Your task to perform on an android device: show emergency info Image 0: 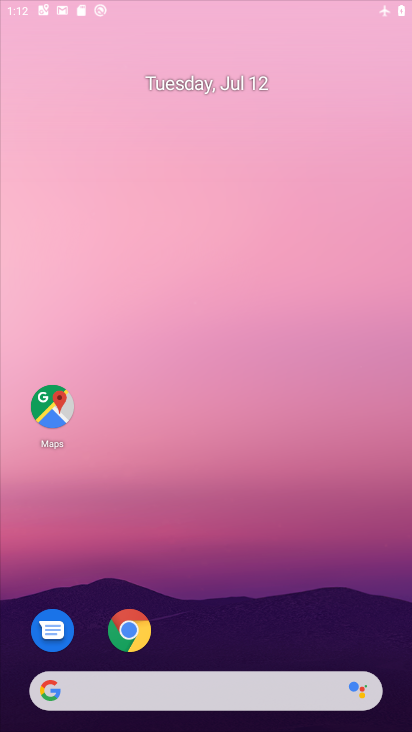
Step 0: press home button
Your task to perform on an android device: show emergency info Image 1: 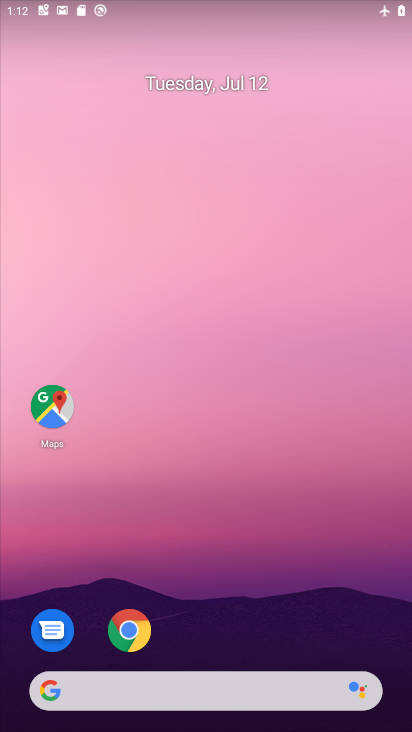
Step 1: drag from (195, 579) to (233, 170)
Your task to perform on an android device: show emergency info Image 2: 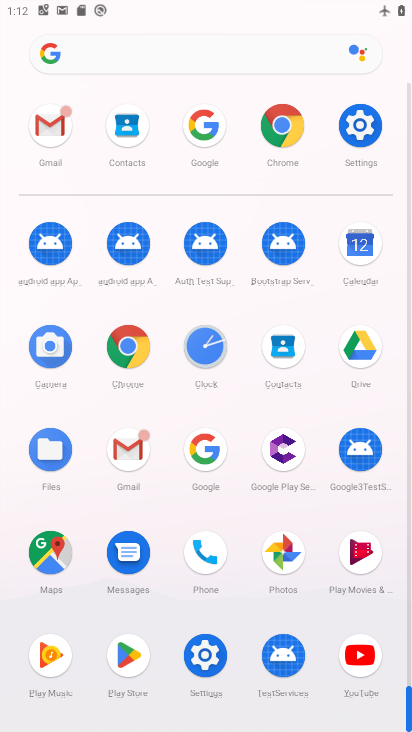
Step 2: click (379, 102)
Your task to perform on an android device: show emergency info Image 3: 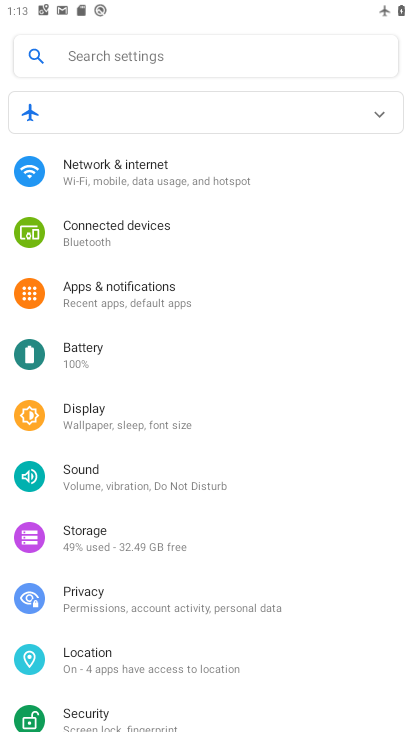
Step 3: drag from (145, 604) to (238, 158)
Your task to perform on an android device: show emergency info Image 4: 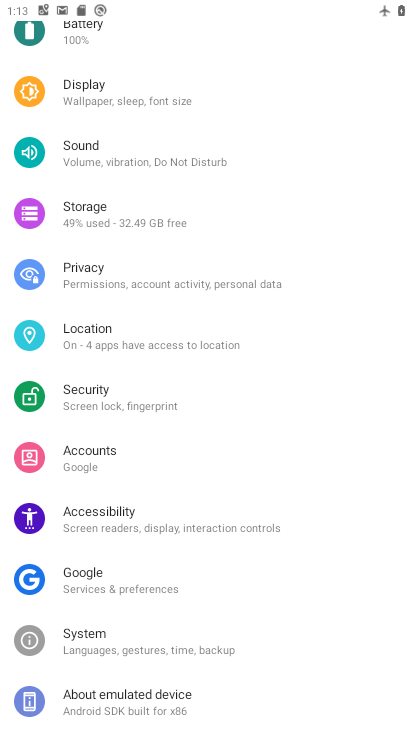
Step 4: click (152, 711)
Your task to perform on an android device: show emergency info Image 5: 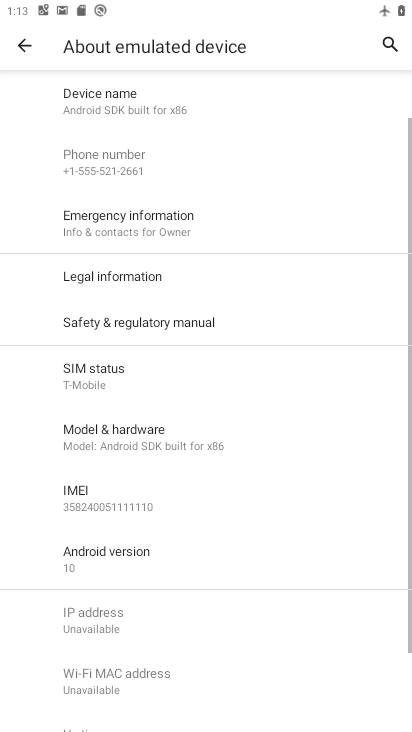
Step 5: click (157, 232)
Your task to perform on an android device: show emergency info Image 6: 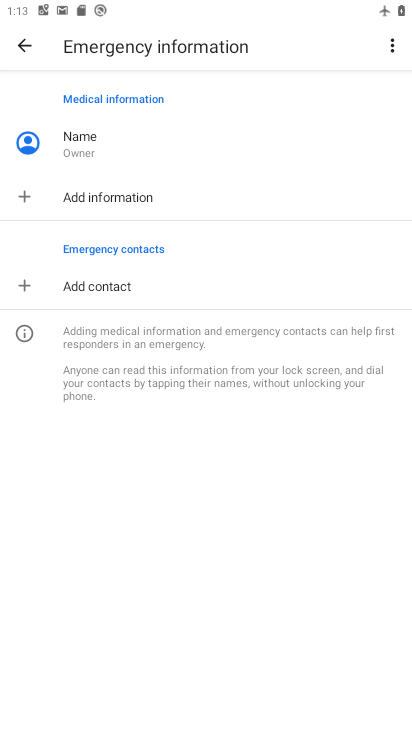
Step 6: task complete